Your task to perform on an android device: change the clock display to digital Image 0: 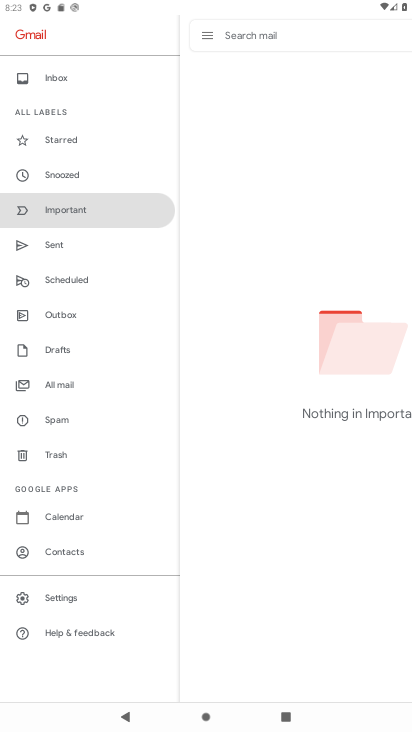
Step 0: press home button
Your task to perform on an android device: change the clock display to digital Image 1: 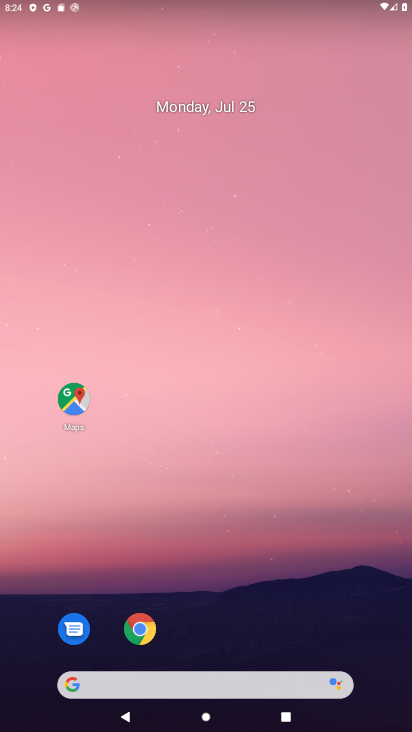
Step 1: drag from (233, 641) to (194, 99)
Your task to perform on an android device: change the clock display to digital Image 2: 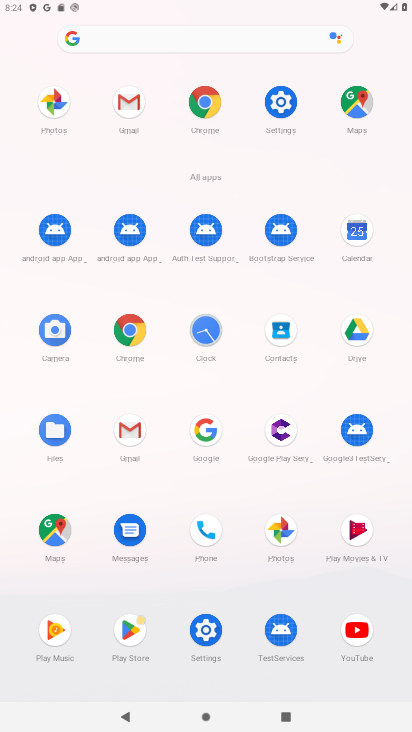
Step 2: click (216, 311)
Your task to perform on an android device: change the clock display to digital Image 3: 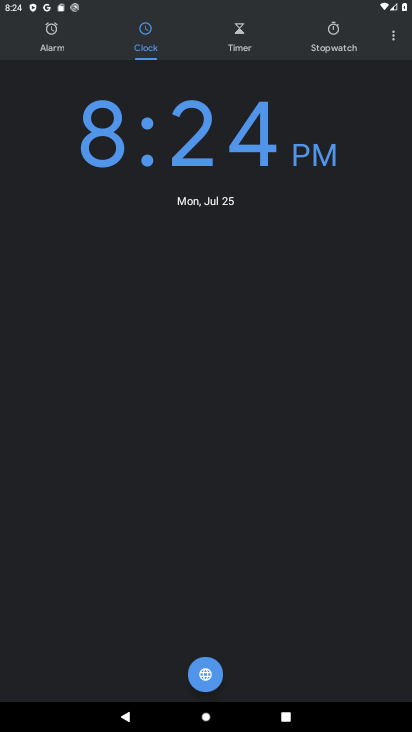
Step 3: click (405, 33)
Your task to perform on an android device: change the clock display to digital Image 4: 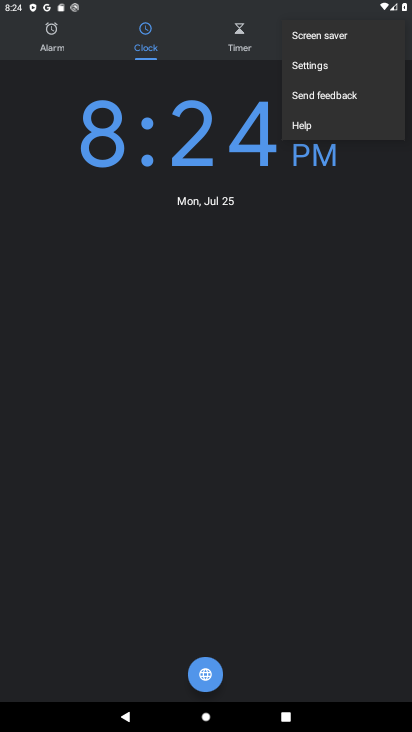
Step 4: click (311, 68)
Your task to perform on an android device: change the clock display to digital Image 5: 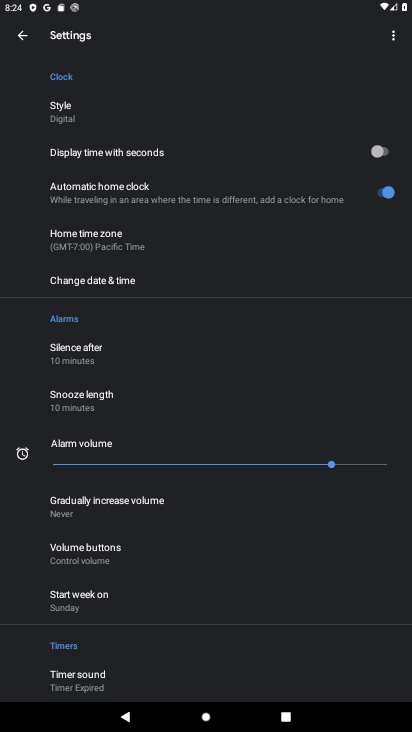
Step 5: click (96, 128)
Your task to perform on an android device: change the clock display to digital Image 6: 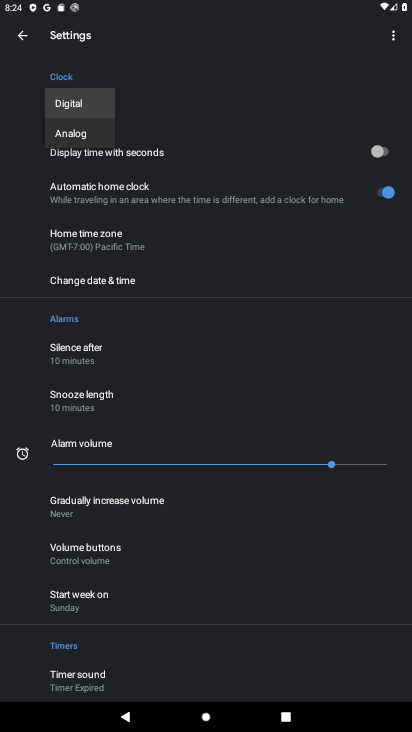
Step 6: task complete